Your task to perform on an android device: Open Chrome and go to settings Image 0: 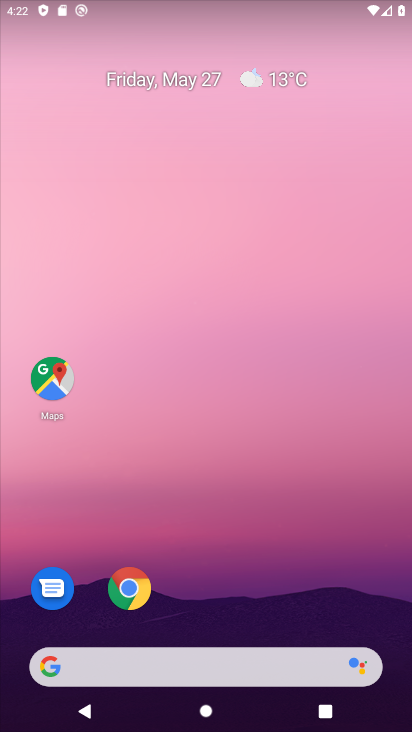
Step 0: click (134, 584)
Your task to perform on an android device: Open Chrome and go to settings Image 1: 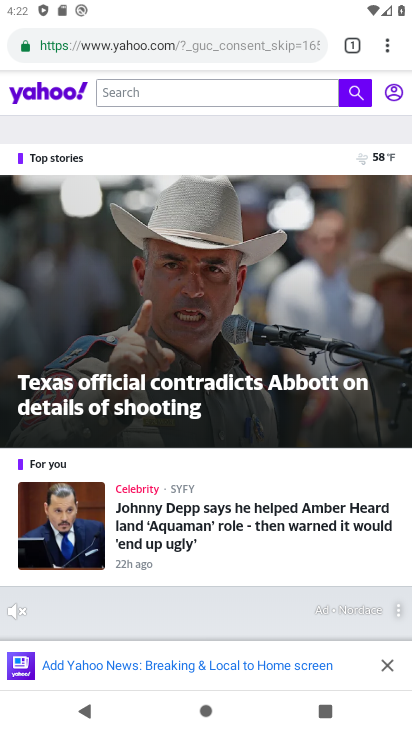
Step 1: task complete